Your task to perform on an android device: add a contact in the contacts app Image 0: 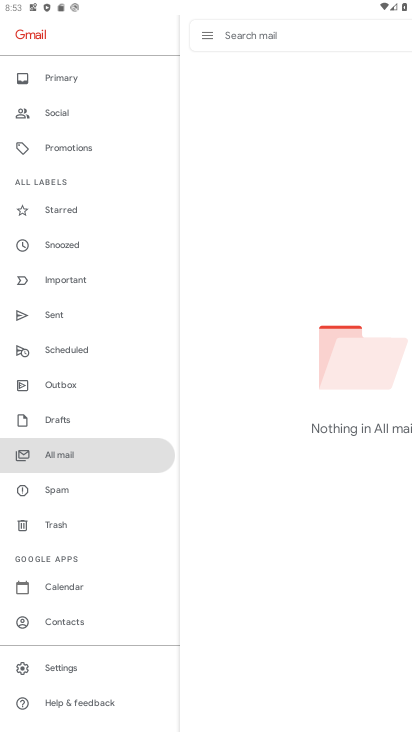
Step 0: press home button
Your task to perform on an android device: add a contact in the contacts app Image 1: 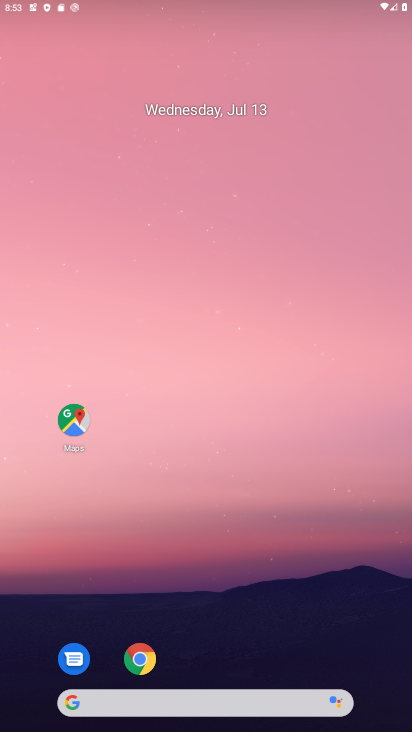
Step 1: drag from (205, 637) to (227, 143)
Your task to perform on an android device: add a contact in the contacts app Image 2: 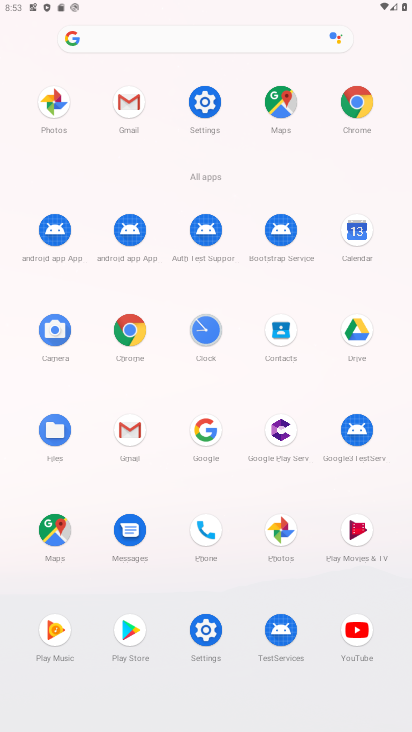
Step 2: click (273, 331)
Your task to perform on an android device: add a contact in the contacts app Image 3: 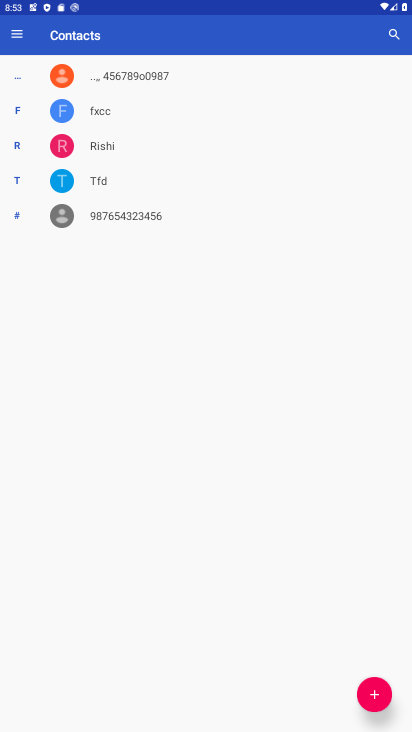
Step 3: click (373, 694)
Your task to perform on an android device: add a contact in the contacts app Image 4: 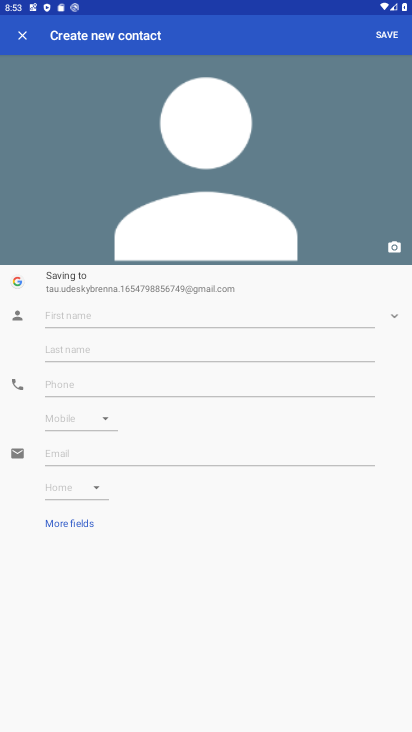
Step 4: click (127, 313)
Your task to perform on an android device: add a contact in the contacts app Image 5: 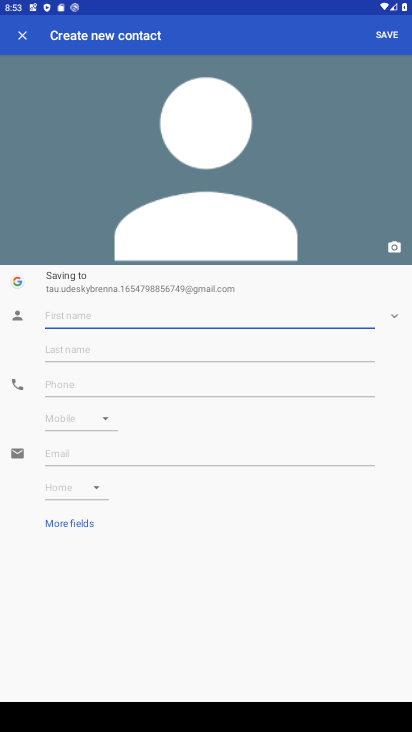
Step 5: type "jhqsxhq"
Your task to perform on an android device: add a contact in the contacts app Image 6: 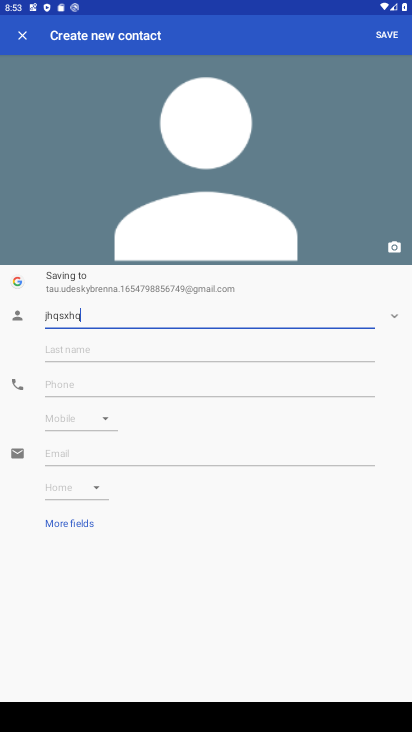
Step 6: click (384, 35)
Your task to perform on an android device: add a contact in the contacts app Image 7: 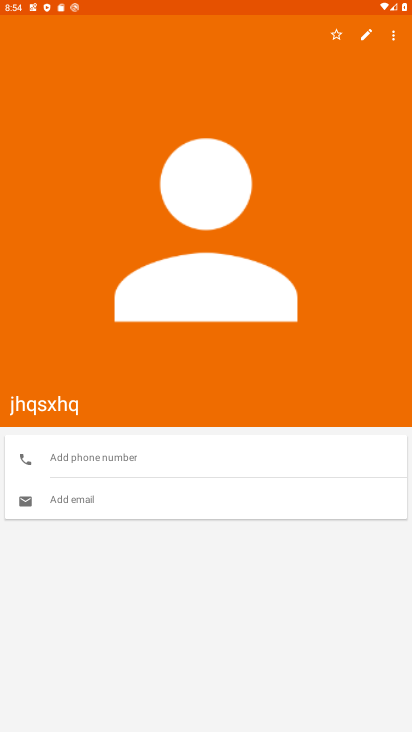
Step 7: task complete